Your task to perform on an android device: Open the Play Movies app and select the watchlist tab. Image 0: 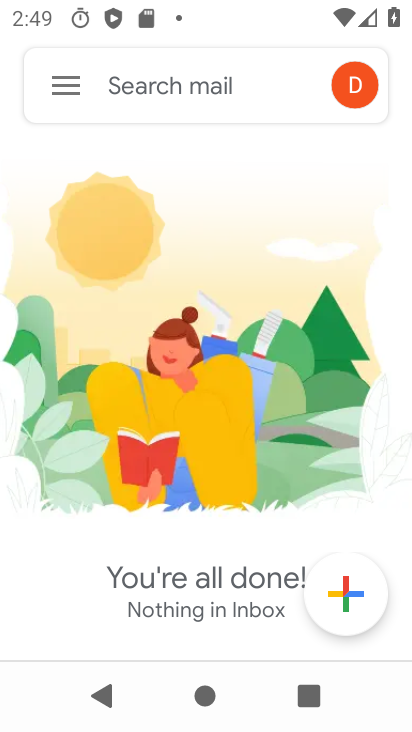
Step 0: press home button
Your task to perform on an android device: Open the Play Movies app and select the watchlist tab. Image 1: 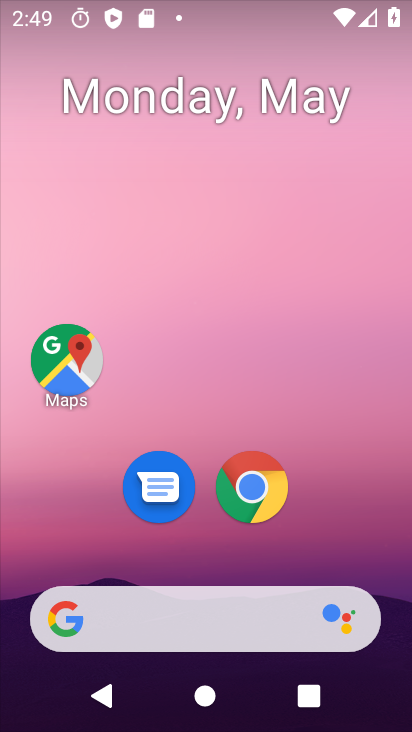
Step 1: drag from (204, 545) to (279, 32)
Your task to perform on an android device: Open the Play Movies app and select the watchlist tab. Image 2: 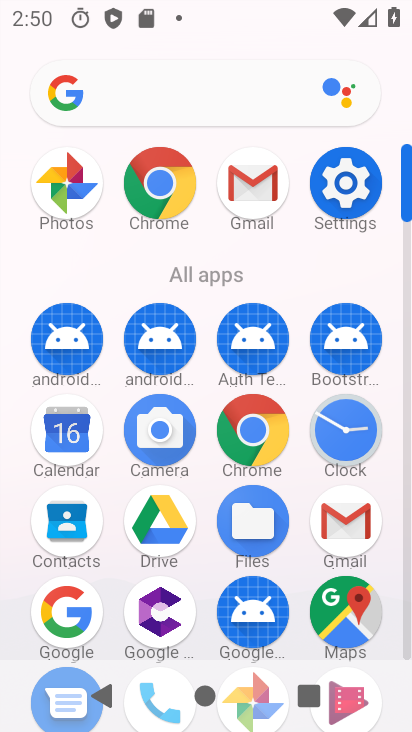
Step 2: drag from (308, 594) to (352, 264)
Your task to perform on an android device: Open the Play Movies app and select the watchlist tab. Image 3: 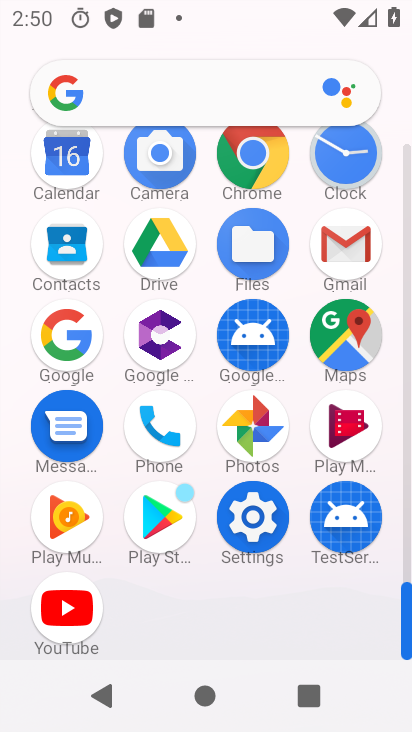
Step 3: click (345, 439)
Your task to perform on an android device: Open the Play Movies app and select the watchlist tab. Image 4: 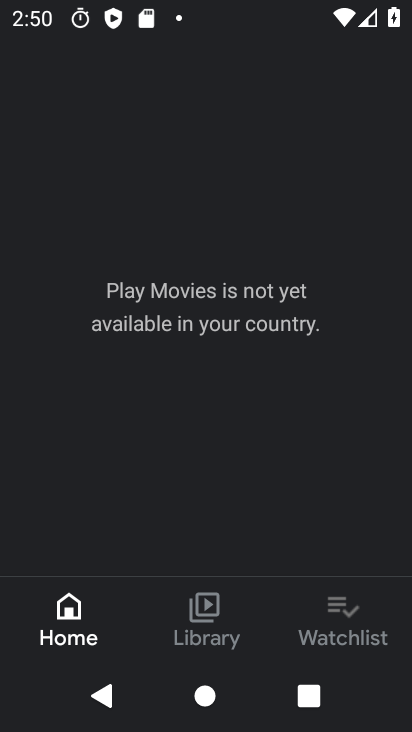
Step 4: click (312, 614)
Your task to perform on an android device: Open the Play Movies app and select the watchlist tab. Image 5: 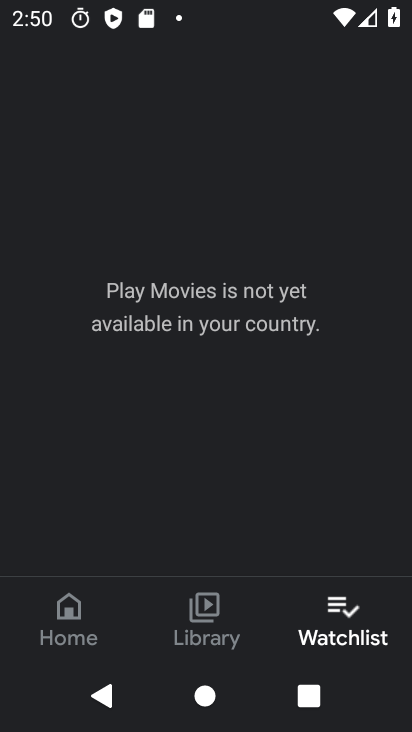
Step 5: task complete